Your task to perform on an android device: Go to CNN.com Image 0: 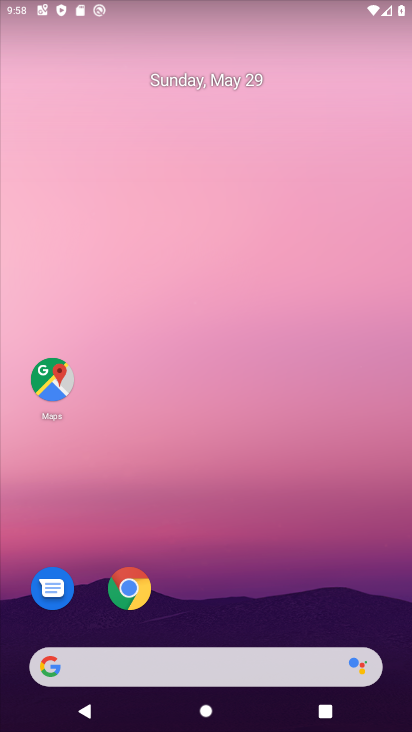
Step 0: drag from (281, 548) to (287, 98)
Your task to perform on an android device: Go to CNN.com Image 1: 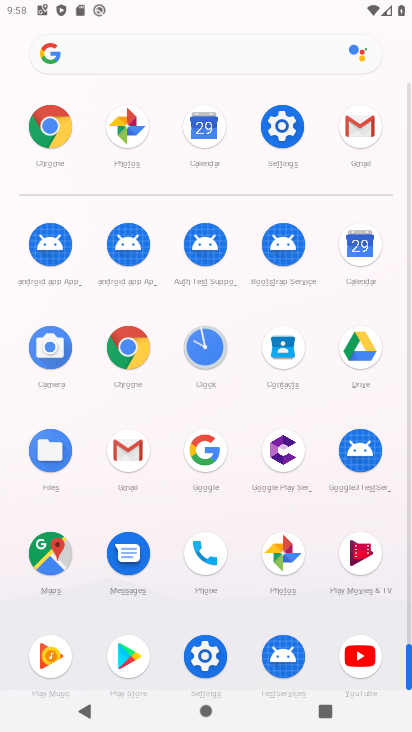
Step 1: click (127, 359)
Your task to perform on an android device: Go to CNN.com Image 2: 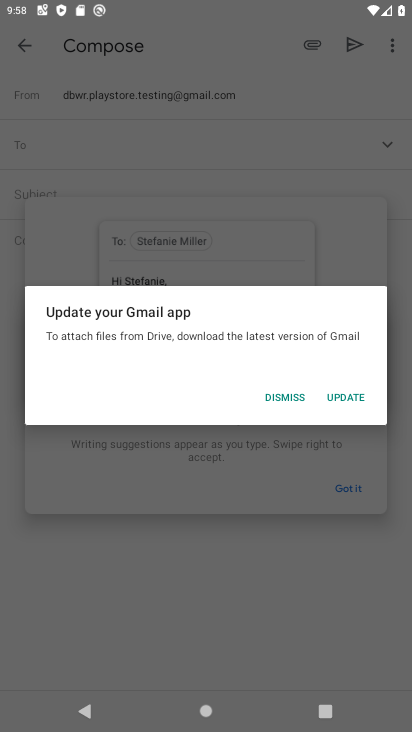
Step 2: press home button
Your task to perform on an android device: Go to CNN.com Image 3: 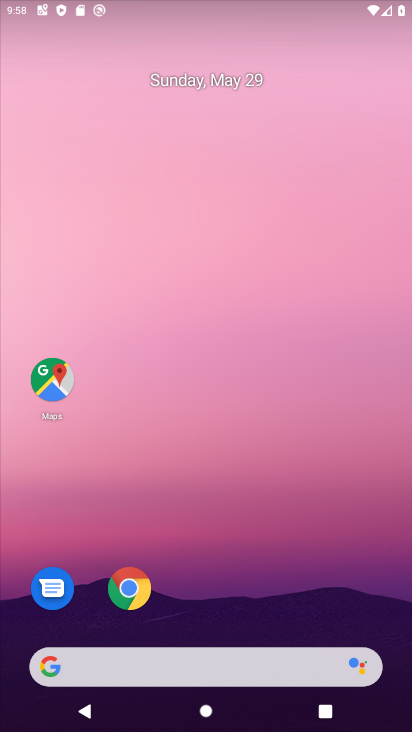
Step 3: drag from (260, 579) to (269, 116)
Your task to perform on an android device: Go to CNN.com Image 4: 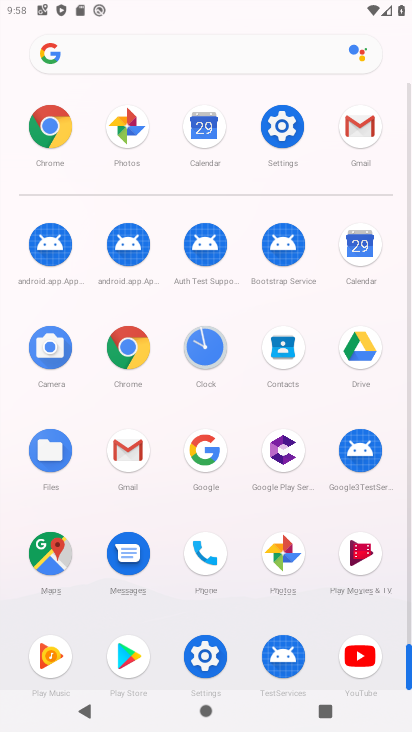
Step 4: click (132, 370)
Your task to perform on an android device: Go to CNN.com Image 5: 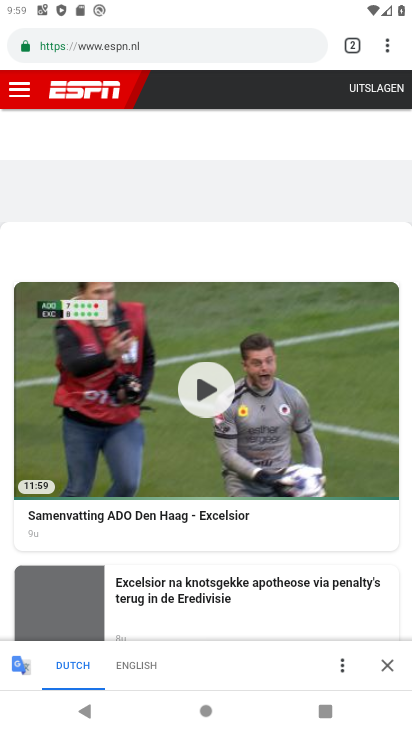
Step 5: click (349, 44)
Your task to perform on an android device: Go to CNN.com Image 6: 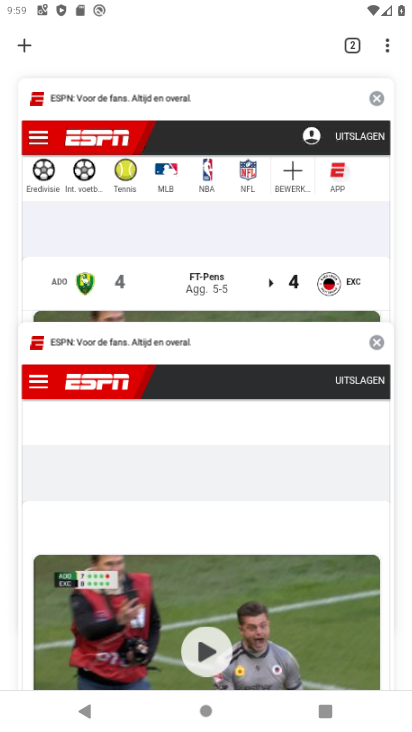
Step 6: click (26, 47)
Your task to perform on an android device: Go to CNN.com Image 7: 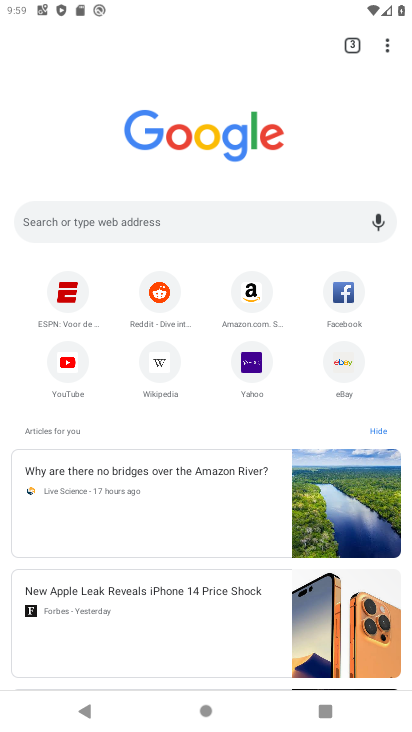
Step 7: click (208, 191)
Your task to perform on an android device: Go to CNN.com Image 8: 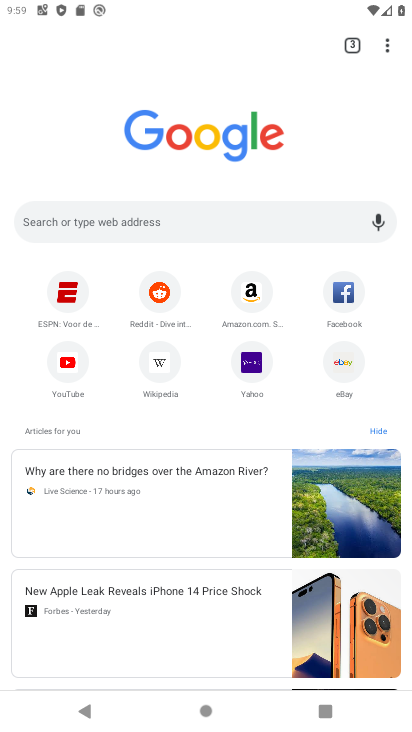
Step 8: click (206, 220)
Your task to perform on an android device: Go to CNN.com Image 9: 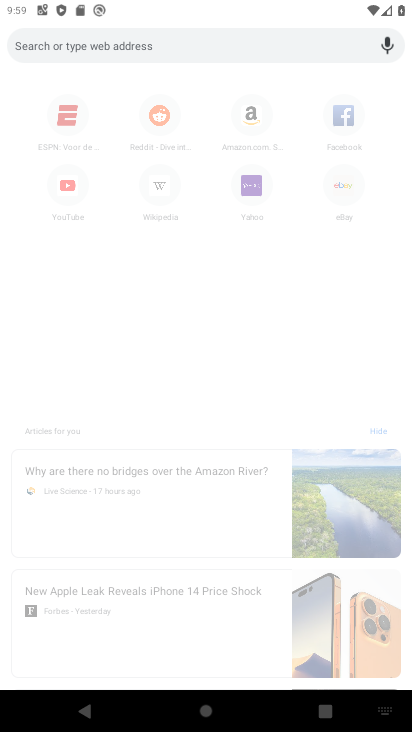
Step 9: type "cnn.com"
Your task to perform on an android device: Go to CNN.com Image 10: 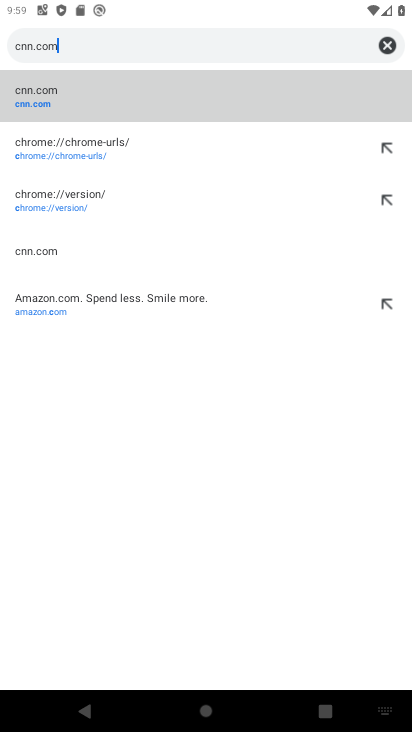
Step 10: type ""
Your task to perform on an android device: Go to CNN.com Image 11: 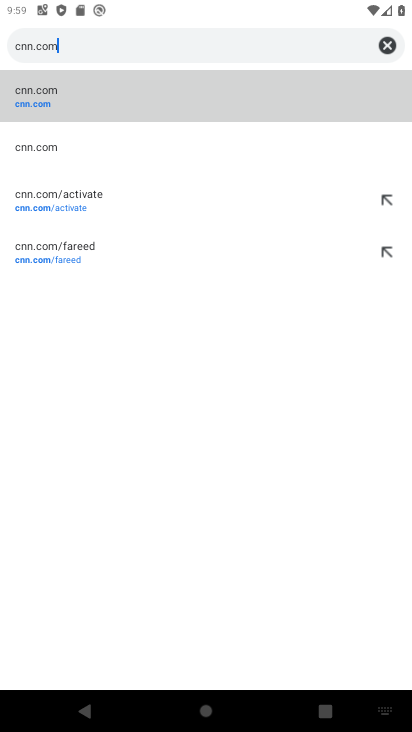
Step 11: click (150, 113)
Your task to perform on an android device: Go to CNN.com Image 12: 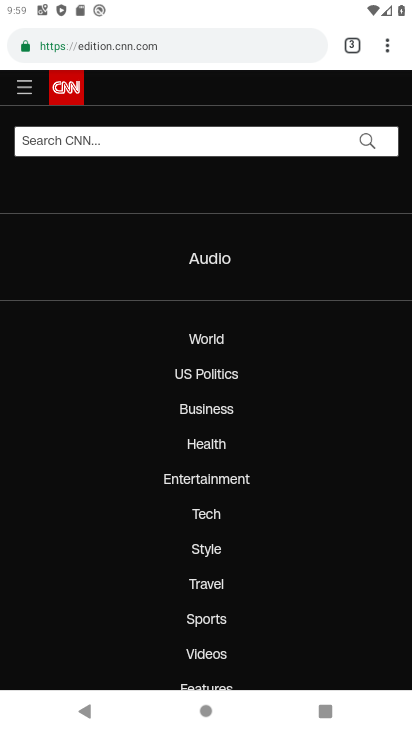
Step 12: task complete